Your task to perform on an android device: When is my next appointment? Image 0: 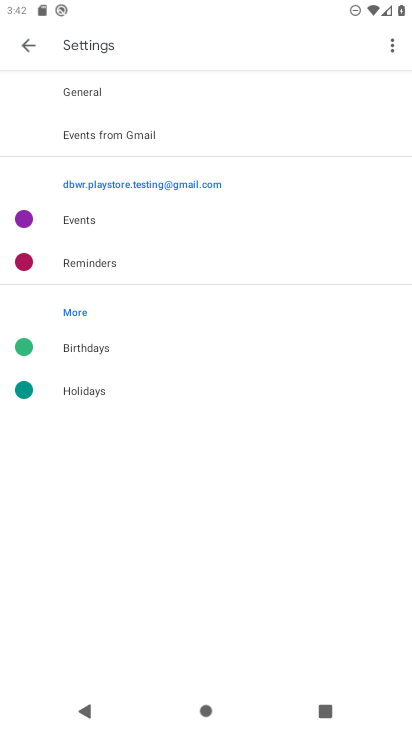
Step 0: press home button
Your task to perform on an android device: When is my next appointment? Image 1: 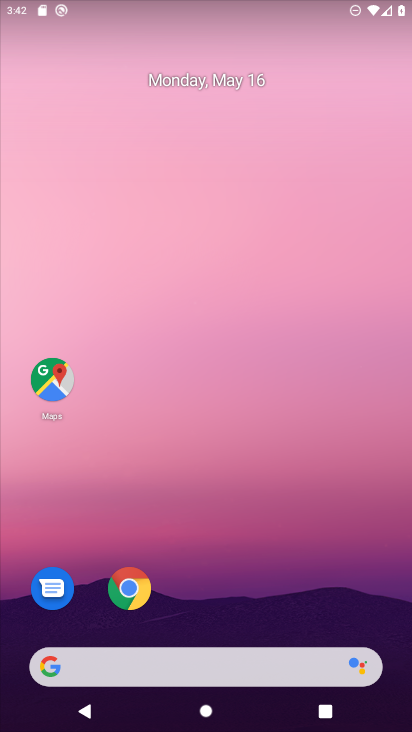
Step 1: drag from (342, 626) to (403, 13)
Your task to perform on an android device: When is my next appointment? Image 2: 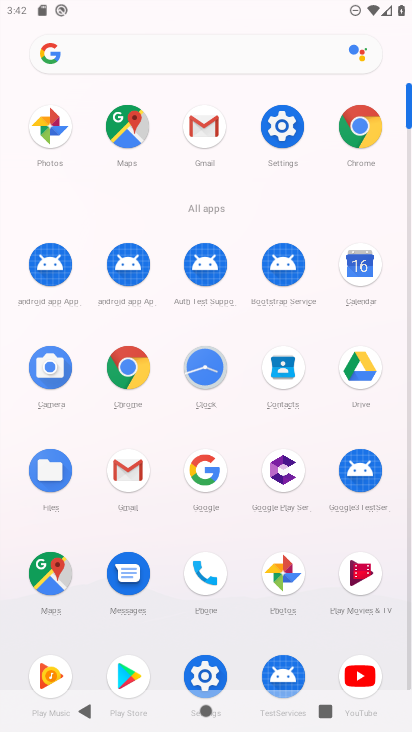
Step 2: click (356, 271)
Your task to perform on an android device: When is my next appointment? Image 3: 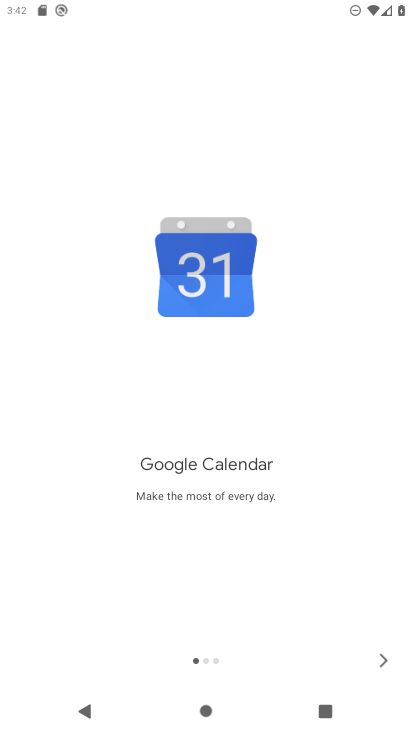
Step 3: click (380, 656)
Your task to perform on an android device: When is my next appointment? Image 4: 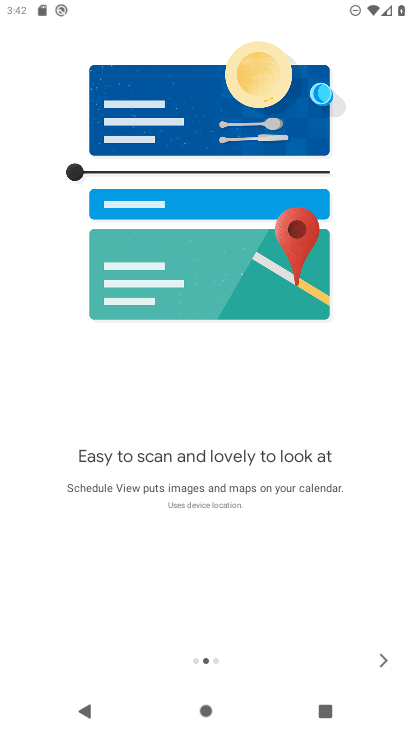
Step 4: click (380, 656)
Your task to perform on an android device: When is my next appointment? Image 5: 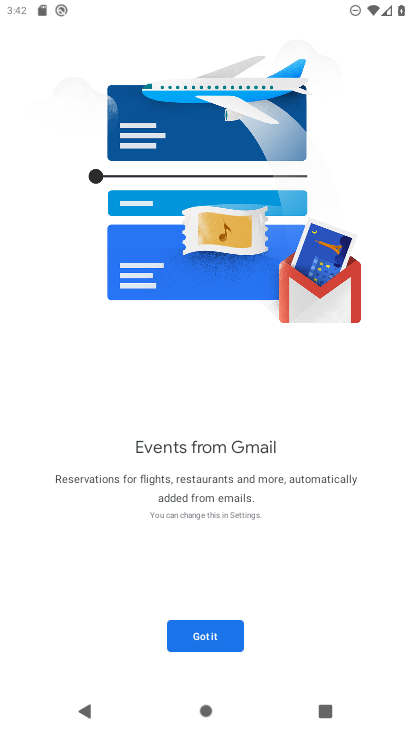
Step 5: click (192, 630)
Your task to perform on an android device: When is my next appointment? Image 6: 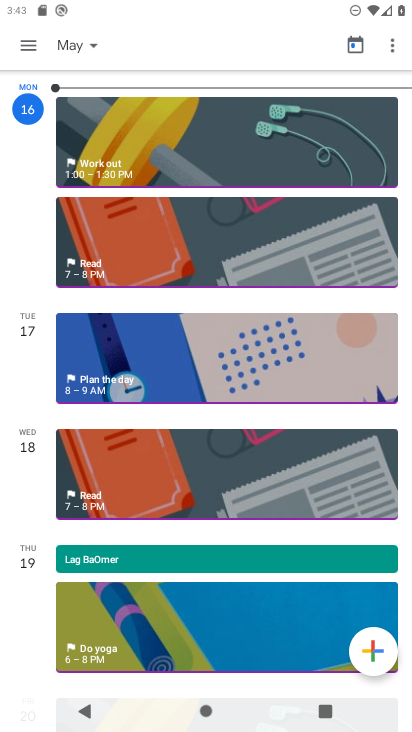
Step 6: drag from (203, 417) to (215, 153)
Your task to perform on an android device: When is my next appointment? Image 7: 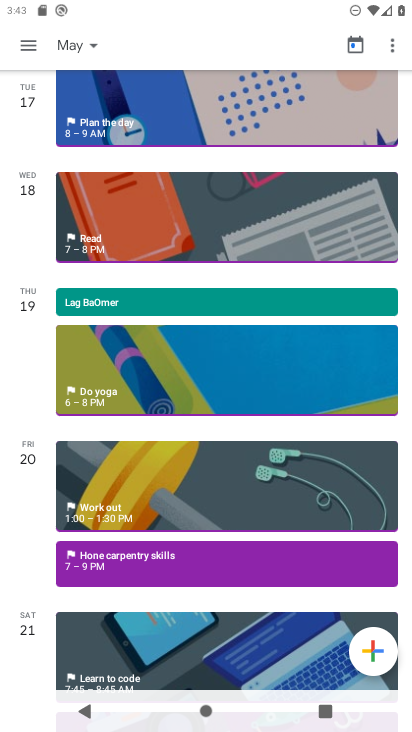
Step 7: drag from (166, 481) to (191, 131)
Your task to perform on an android device: When is my next appointment? Image 8: 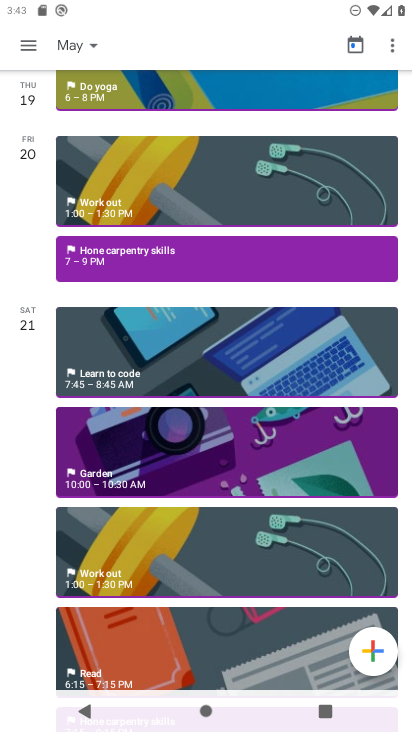
Step 8: click (165, 261)
Your task to perform on an android device: When is my next appointment? Image 9: 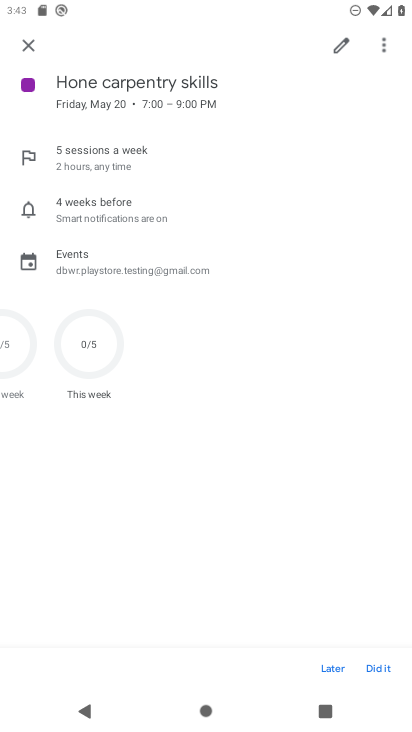
Step 9: task complete